Your task to perform on an android device: turn off notifications settings in the gmail app Image 0: 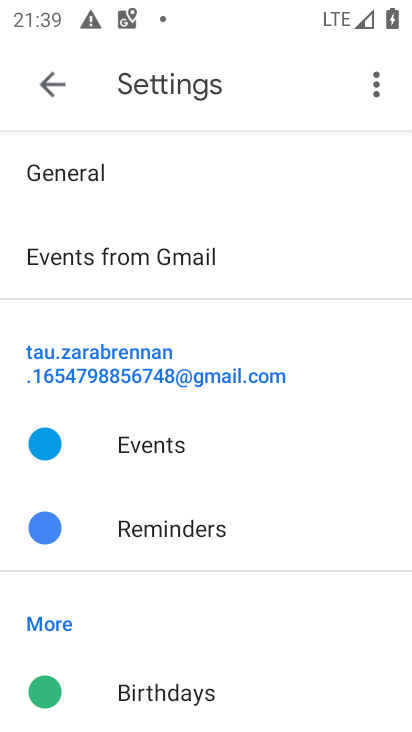
Step 0: press home button
Your task to perform on an android device: turn off notifications settings in the gmail app Image 1: 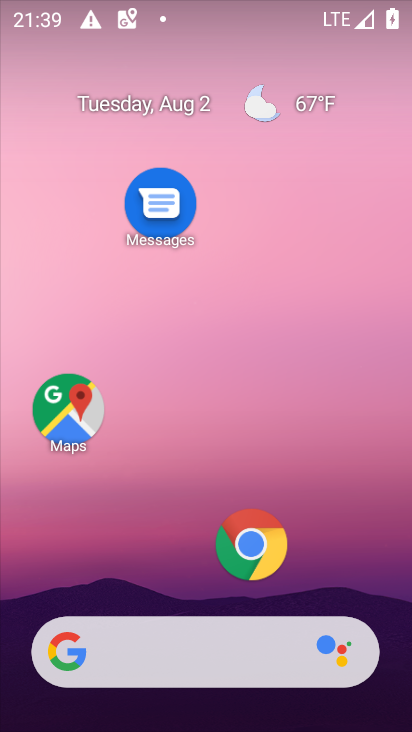
Step 1: drag from (176, 544) to (166, 244)
Your task to perform on an android device: turn off notifications settings in the gmail app Image 2: 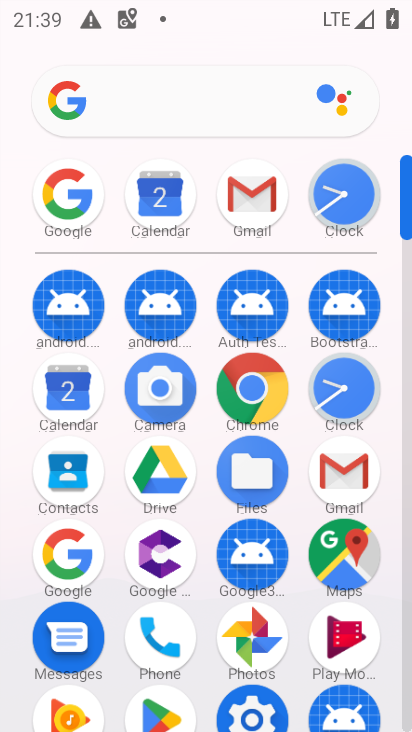
Step 2: click (257, 202)
Your task to perform on an android device: turn off notifications settings in the gmail app Image 3: 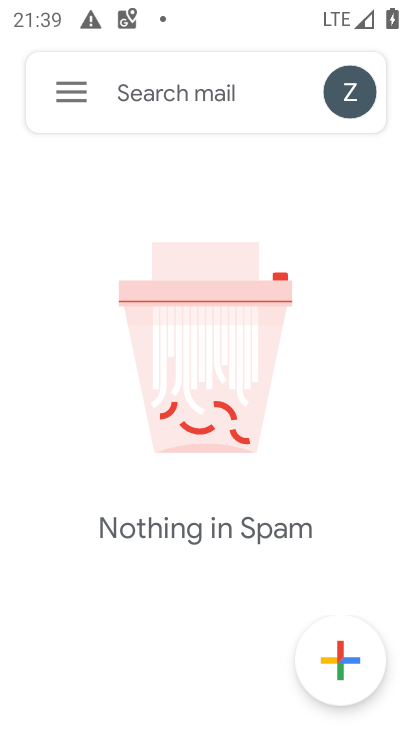
Step 3: click (81, 96)
Your task to perform on an android device: turn off notifications settings in the gmail app Image 4: 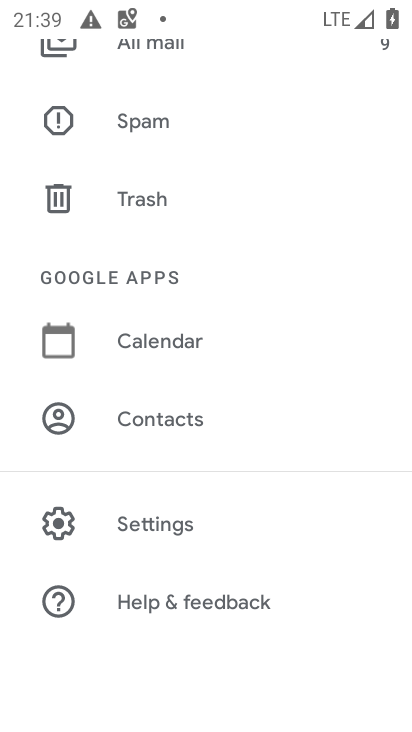
Step 4: click (111, 522)
Your task to perform on an android device: turn off notifications settings in the gmail app Image 5: 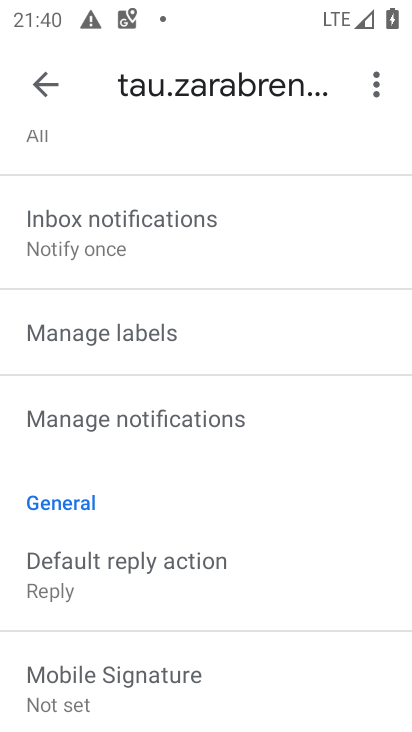
Step 5: click (172, 429)
Your task to perform on an android device: turn off notifications settings in the gmail app Image 6: 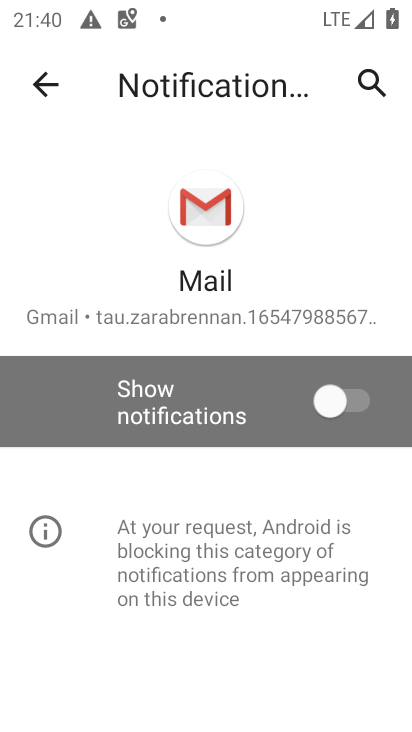
Step 6: task complete